Your task to perform on an android device: change text size in settings app Image 0: 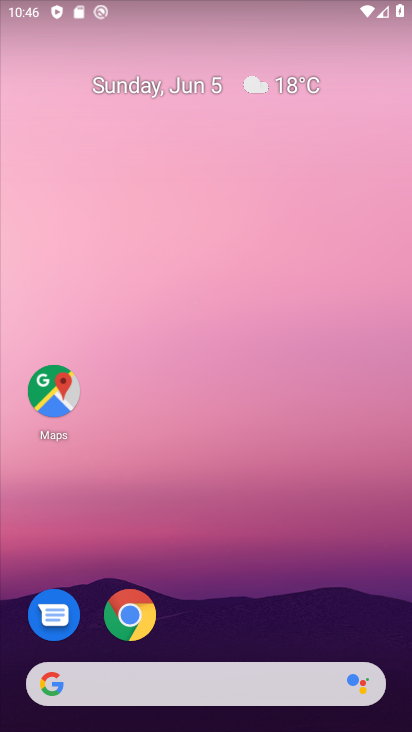
Step 0: drag from (296, 621) to (259, 280)
Your task to perform on an android device: change text size in settings app Image 1: 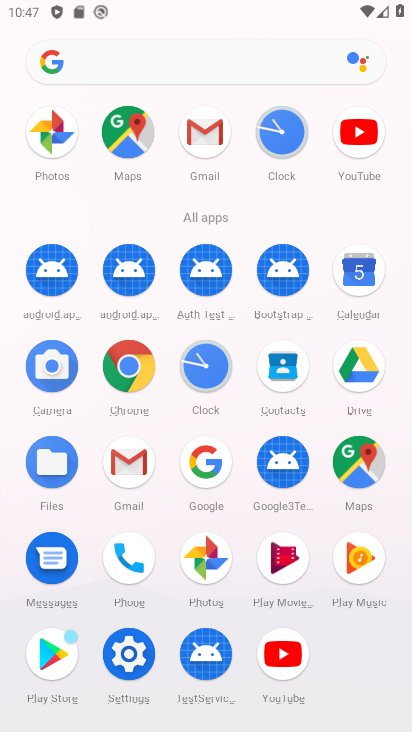
Step 1: drag from (167, 443) to (169, 234)
Your task to perform on an android device: change text size in settings app Image 2: 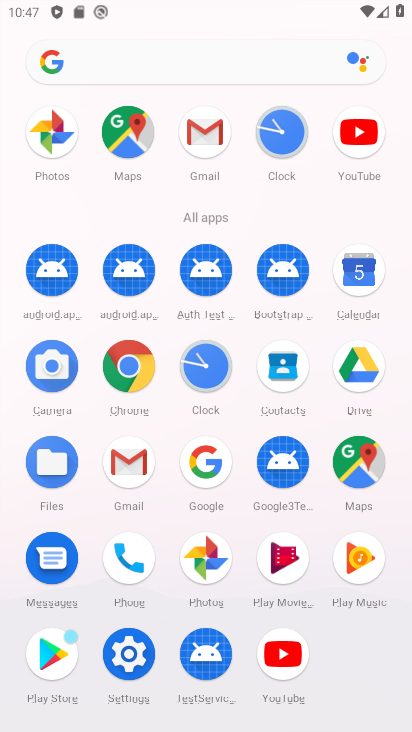
Step 2: click (129, 653)
Your task to perform on an android device: change text size in settings app Image 3: 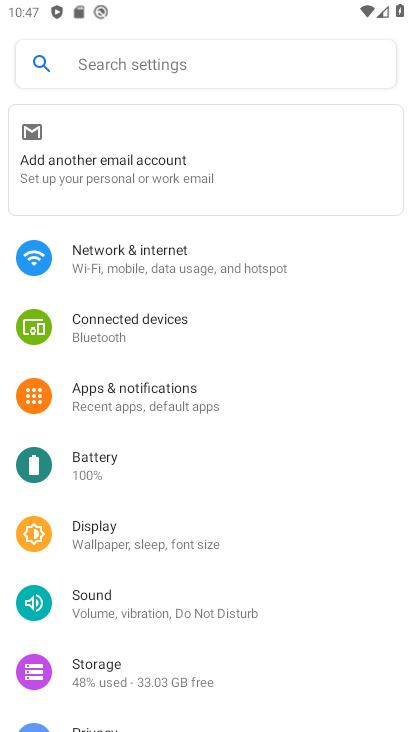
Step 3: drag from (169, 499) to (215, 409)
Your task to perform on an android device: change text size in settings app Image 4: 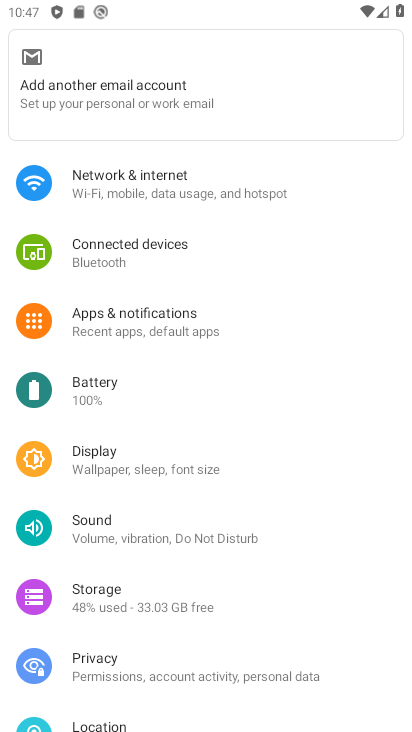
Step 4: drag from (167, 504) to (237, 402)
Your task to perform on an android device: change text size in settings app Image 5: 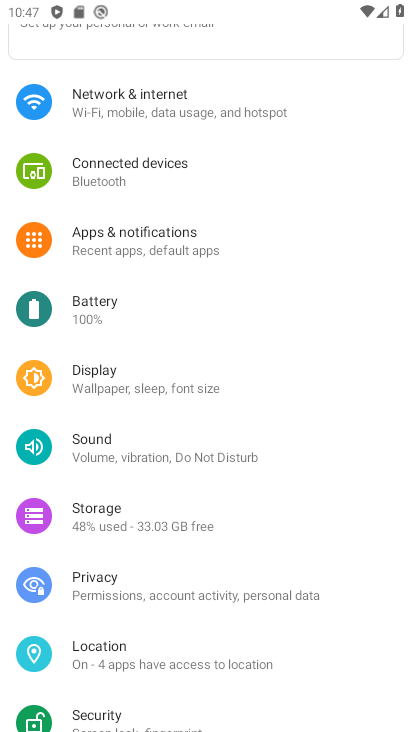
Step 5: drag from (115, 483) to (170, 392)
Your task to perform on an android device: change text size in settings app Image 6: 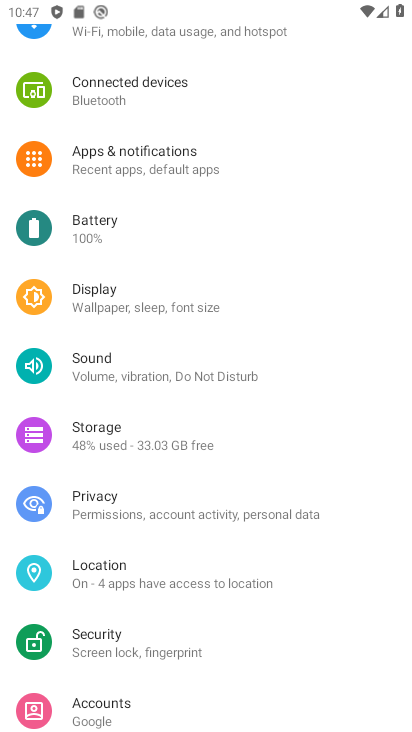
Step 6: drag from (138, 536) to (197, 436)
Your task to perform on an android device: change text size in settings app Image 7: 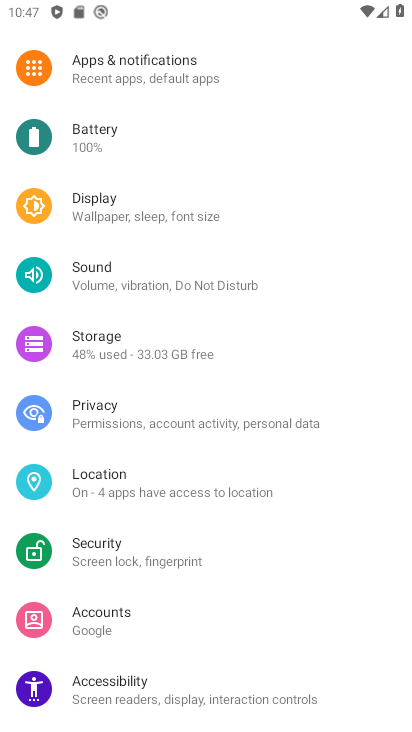
Step 7: drag from (107, 521) to (170, 437)
Your task to perform on an android device: change text size in settings app Image 8: 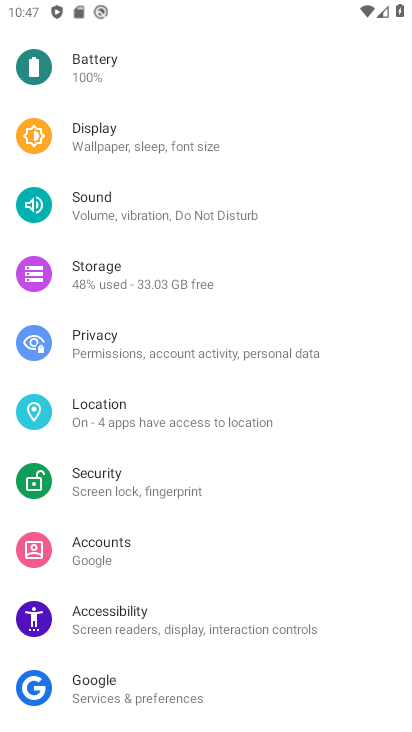
Step 8: drag from (104, 588) to (184, 473)
Your task to perform on an android device: change text size in settings app Image 9: 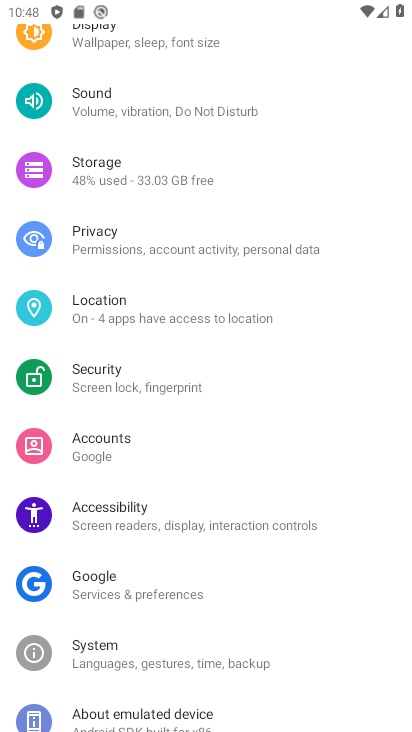
Step 9: click (155, 530)
Your task to perform on an android device: change text size in settings app Image 10: 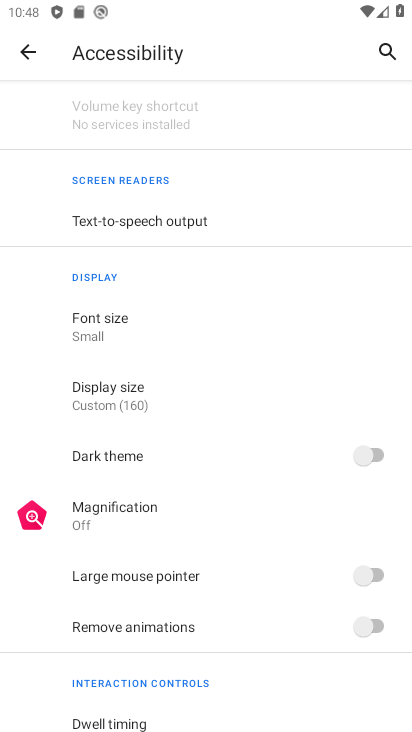
Step 10: click (126, 327)
Your task to perform on an android device: change text size in settings app Image 11: 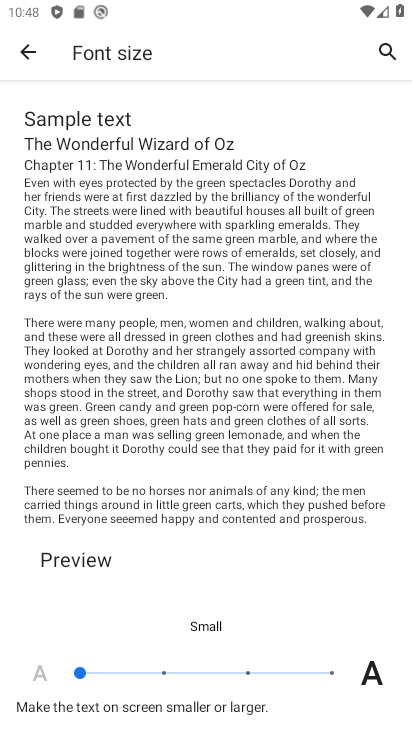
Step 11: click (161, 674)
Your task to perform on an android device: change text size in settings app Image 12: 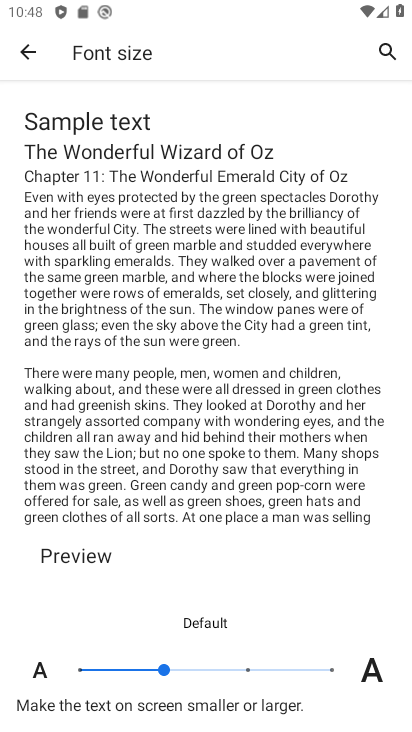
Step 12: task complete